Your task to perform on an android device: Search for pizza restaurants on Maps Image 0: 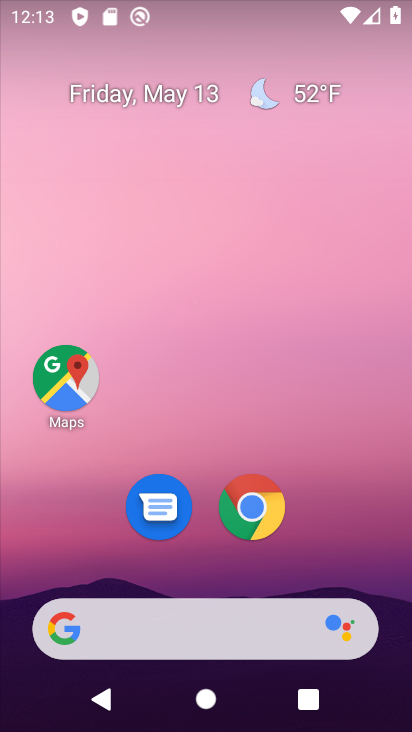
Step 0: click (73, 391)
Your task to perform on an android device: Search for pizza restaurants on Maps Image 1: 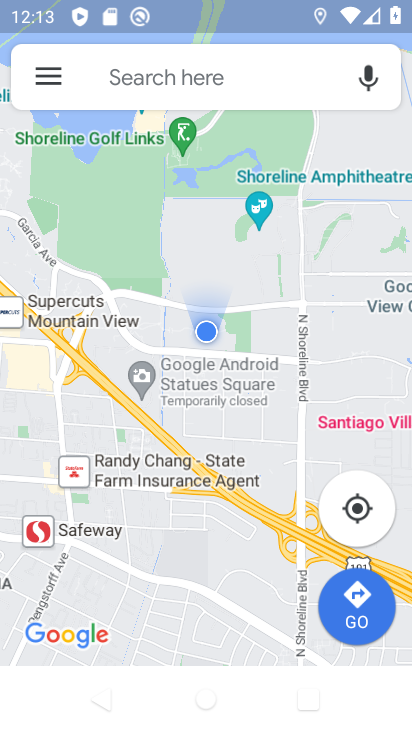
Step 1: click (208, 80)
Your task to perform on an android device: Search for pizza restaurants on Maps Image 2: 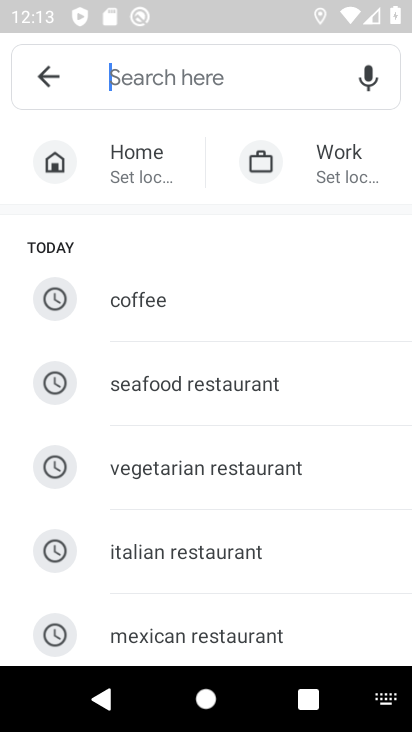
Step 2: drag from (171, 651) to (234, 375)
Your task to perform on an android device: Search for pizza restaurants on Maps Image 3: 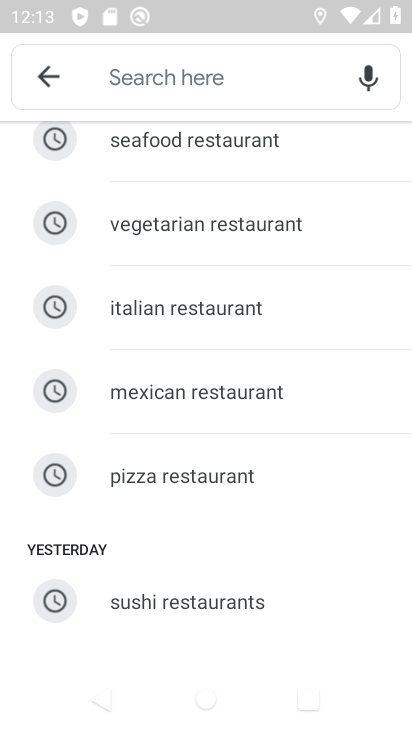
Step 3: click (216, 467)
Your task to perform on an android device: Search for pizza restaurants on Maps Image 4: 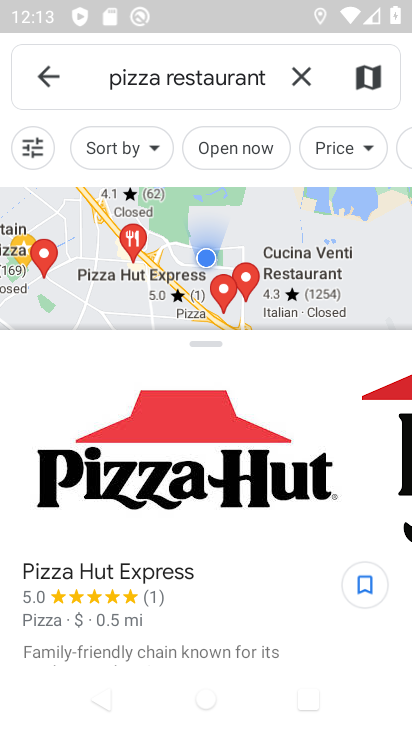
Step 4: task complete